Your task to perform on an android device: What's the weather going to be tomorrow? Image 0: 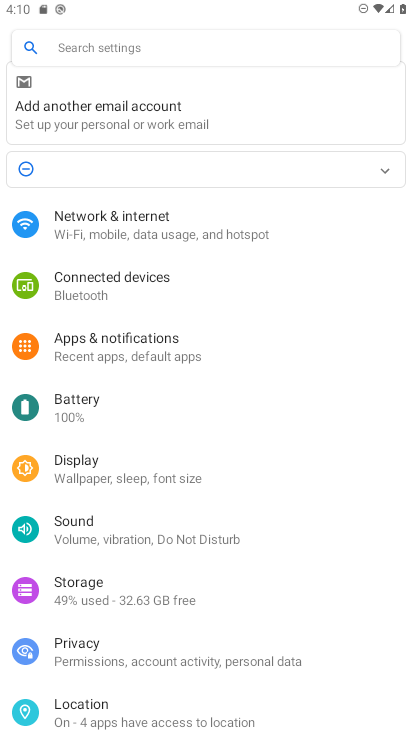
Step 0: press home button
Your task to perform on an android device: What's the weather going to be tomorrow? Image 1: 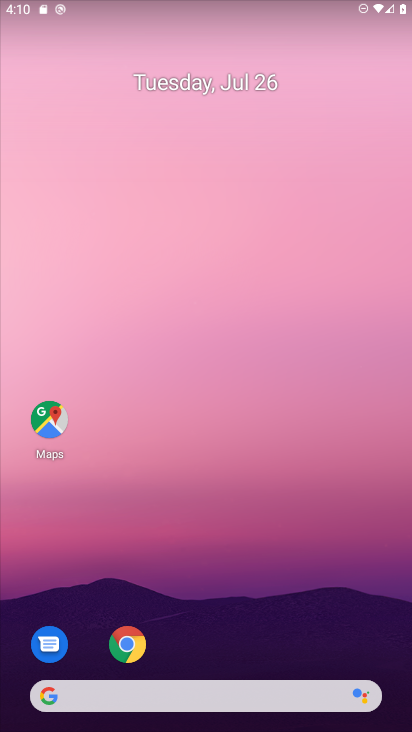
Step 1: drag from (5, 325) to (378, 348)
Your task to perform on an android device: What's the weather going to be tomorrow? Image 2: 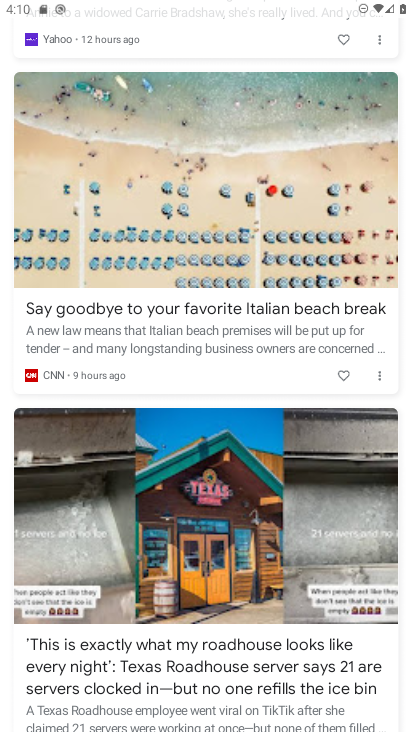
Step 2: drag from (215, 63) to (205, 371)
Your task to perform on an android device: What's the weather going to be tomorrow? Image 3: 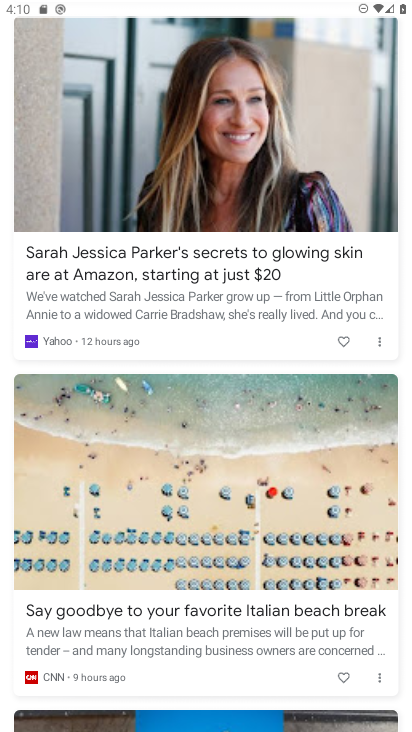
Step 3: drag from (233, 114) to (246, 614)
Your task to perform on an android device: What's the weather going to be tomorrow? Image 4: 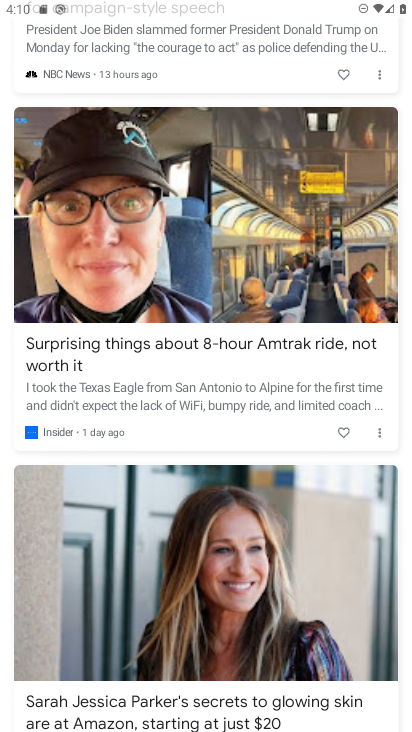
Step 4: drag from (264, 79) to (241, 489)
Your task to perform on an android device: What's the weather going to be tomorrow? Image 5: 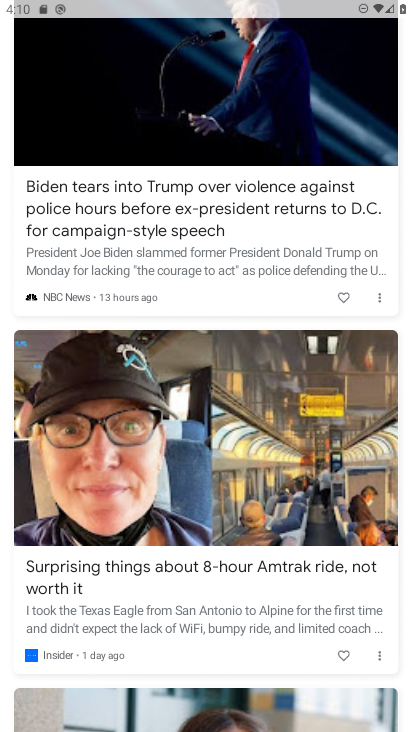
Step 5: drag from (264, 113) to (263, 495)
Your task to perform on an android device: What's the weather going to be tomorrow? Image 6: 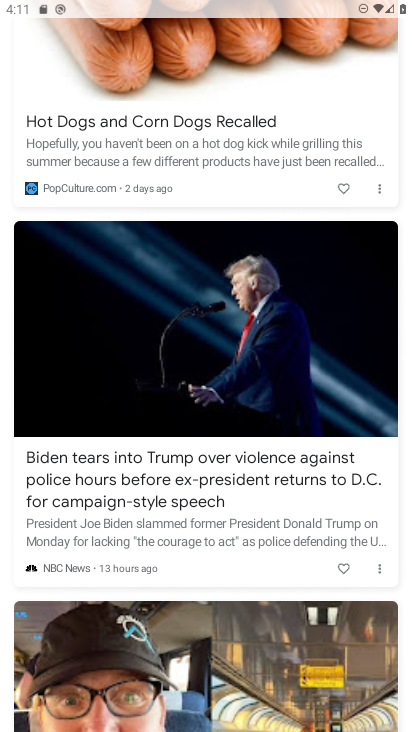
Step 6: drag from (266, 146) to (224, 549)
Your task to perform on an android device: What's the weather going to be tomorrow? Image 7: 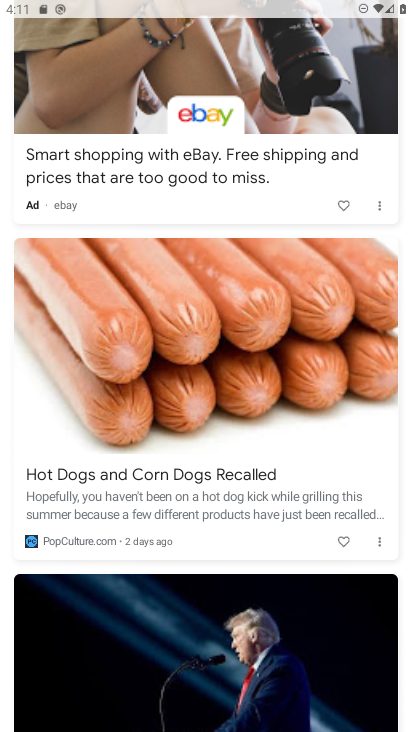
Step 7: drag from (274, 134) to (250, 542)
Your task to perform on an android device: What's the weather going to be tomorrow? Image 8: 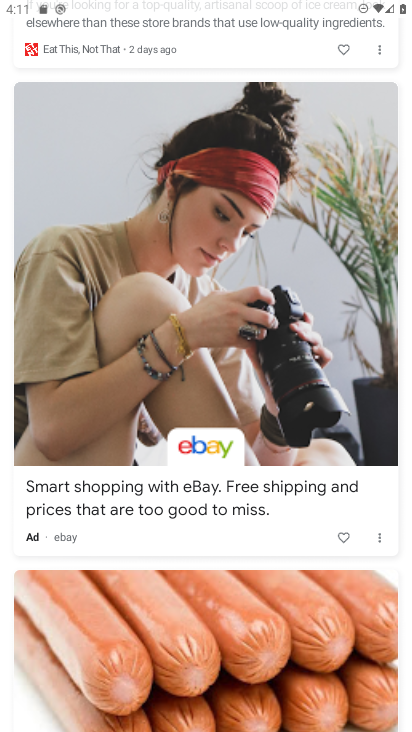
Step 8: drag from (271, 47) to (260, 536)
Your task to perform on an android device: What's the weather going to be tomorrow? Image 9: 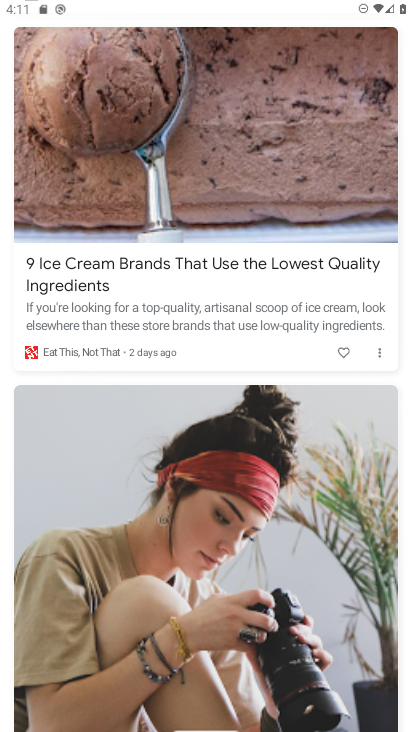
Step 9: drag from (289, 87) to (278, 485)
Your task to perform on an android device: What's the weather going to be tomorrow? Image 10: 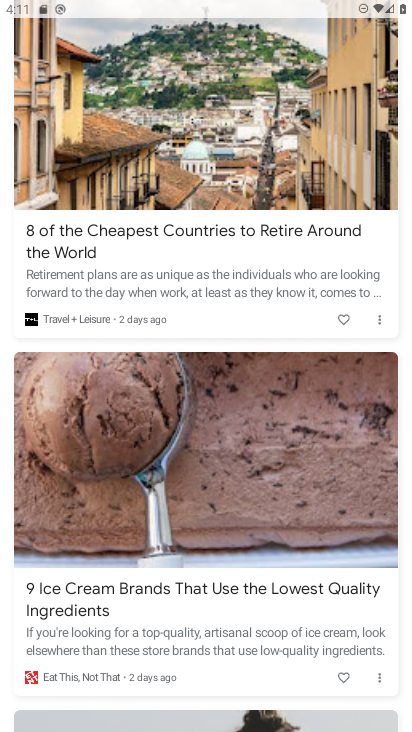
Step 10: drag from (300, 137) to (246, 496)
Your task to perform on an android device: What's the weather going to be tomorrow? Image 11: 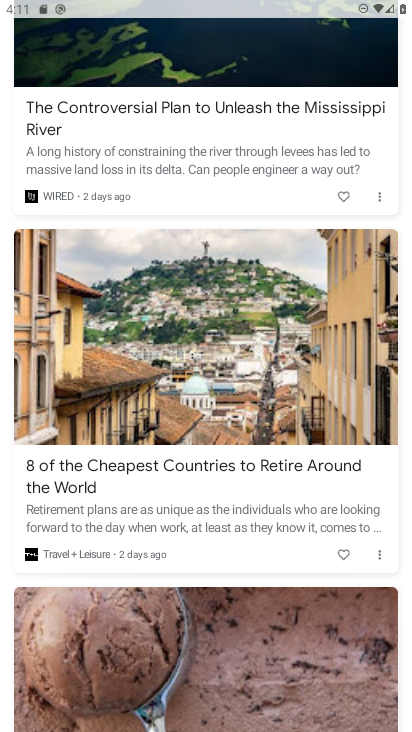
Step 11: drag from (246, 123) to (219, 682)
Your task to perform on an android device: What's the weather going to be tomorrow? Image 12: 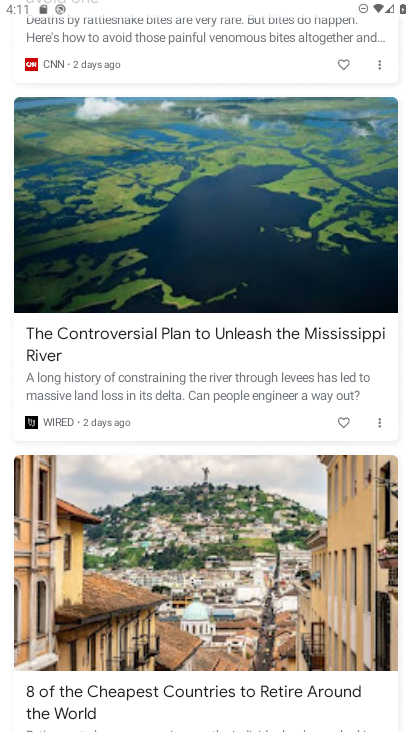
Step 12: drag from (240, 91) to (254, 601)
Your task to perform on an android device: What's the weather going to be tomorrow? Image 13: 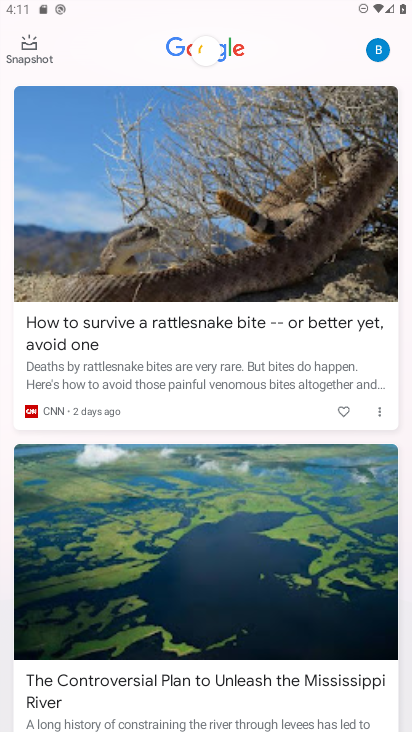
Step 13: drag from (283, 327) to (9, 319)
Your task to perform on an android device: What's the weather going to be tomorrow? Image 14: 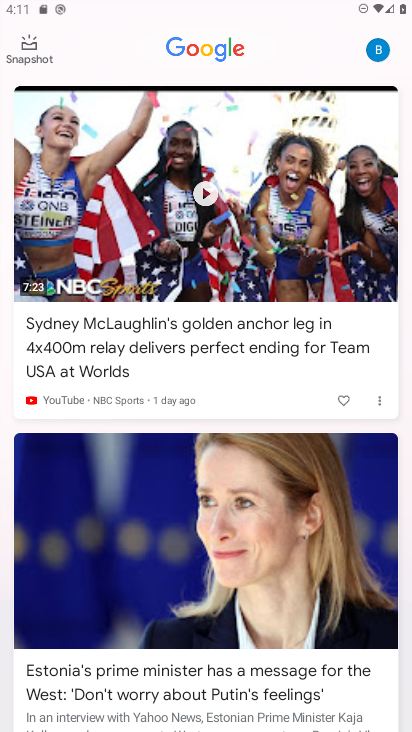
Step 14: drag from (356, 306) to (11, 371)
Your task to perform on an android device: What's the weather going to be tomorrow? Image 15: 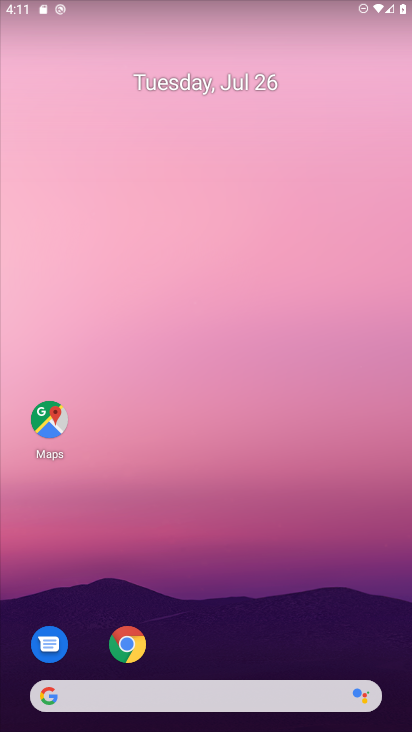
Step 15: click (91, 696)
Your task to perform on an android device: What's the weather going to be tomorrow? Image 16: 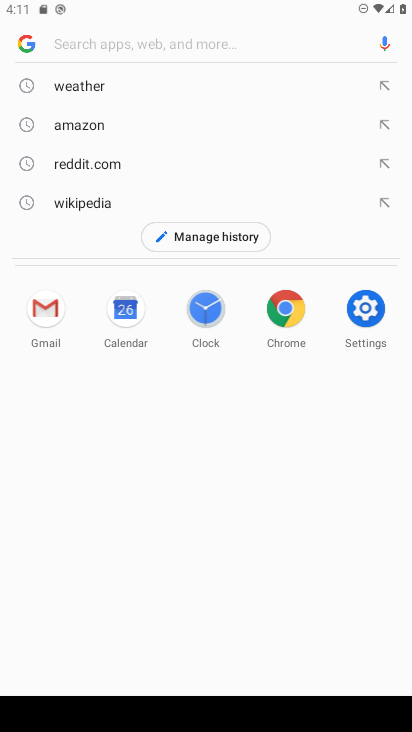
Step 16: click (74, 87)
Your task to perform on an android device: What's the weather going to be tomorrow? Image 17: 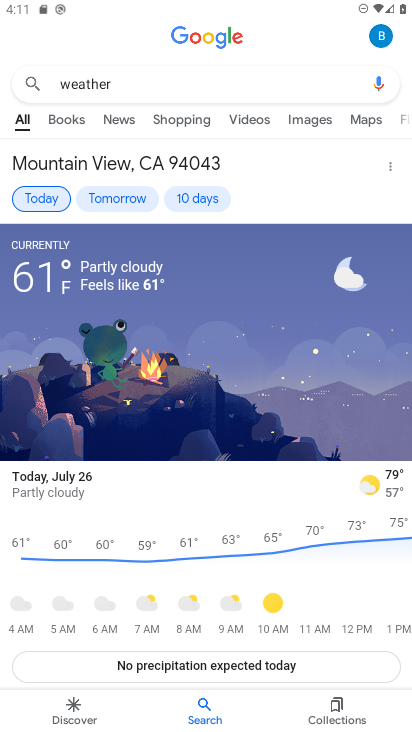
Step 17: click (124, 197)
Your task to perform on an android device: What's the weather going to be tomorrow? Image 18: 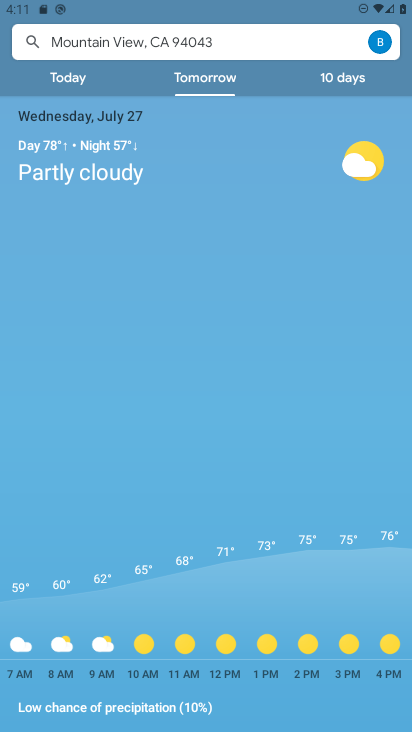
Step 18: task complete